Your task to perform on an android device: View the shopping cart on walmart.com. Add "rayovac triple a" to the cart on walmart.com Image 0: 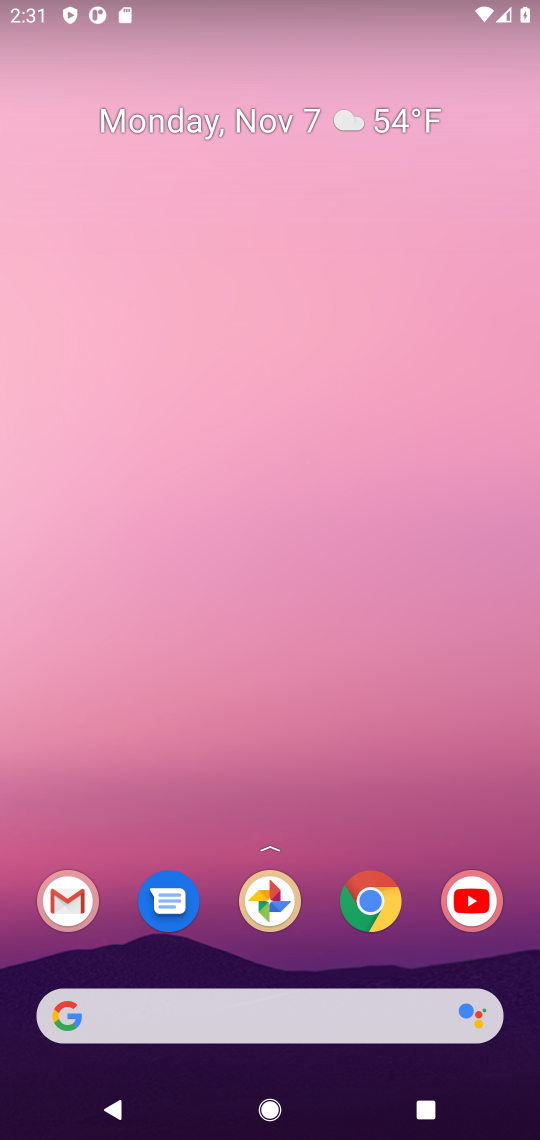
Step 0: click (363, 910)
Your task to perform on an android device: View the shopping cart on walmart.com. Add "rayovac triple a" to the cart on walmart.com Image 1: 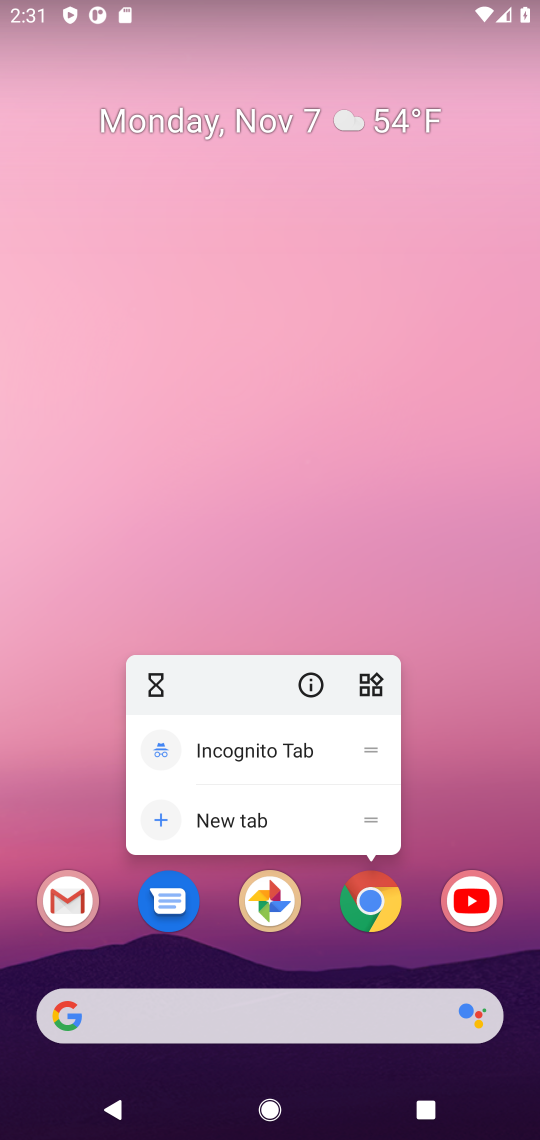
Step 1: click (363, 910)
Your task to perform on an android device: View the shopping cart on walmart.com. Add "rayovac triple a" to the cart on walmart.com Image 2: 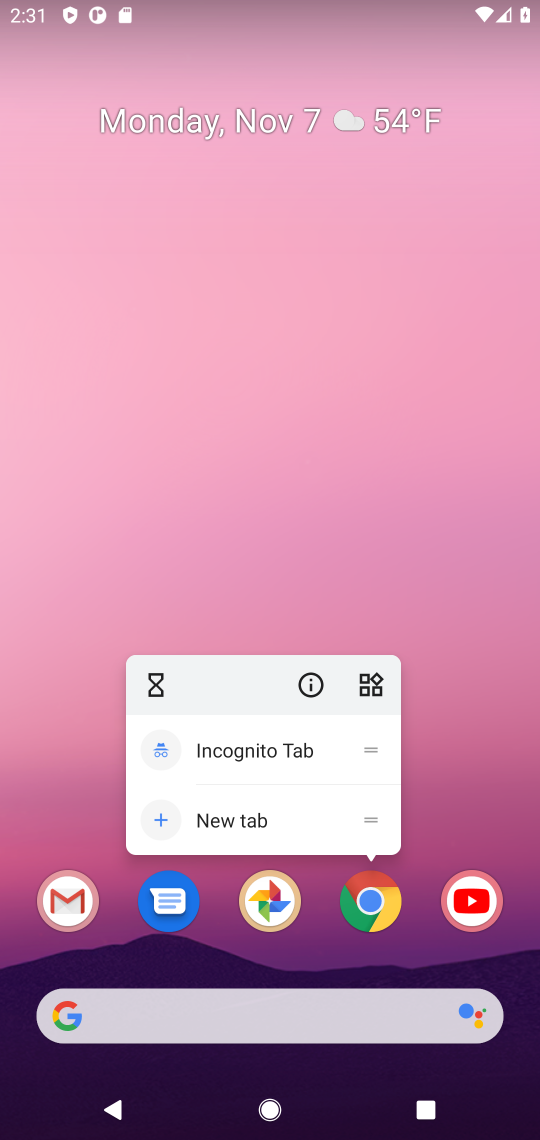
Step 2: click (368, 899)
Your task to perform on an android device: View the shopping cart on walmart.com. Add "rayovac triple a" to the cart on walmart.com Image 3: 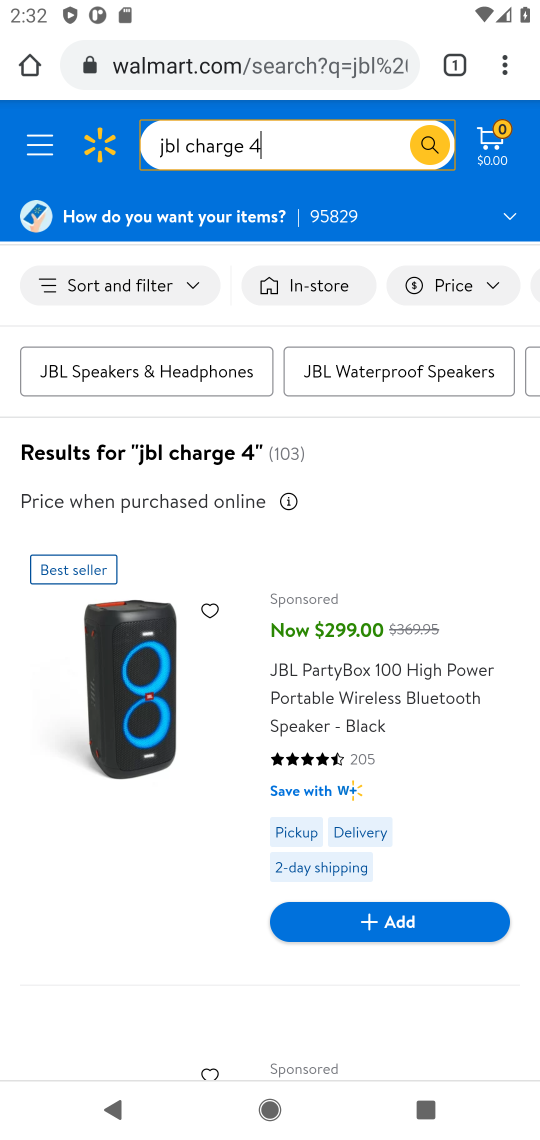
Step 3: click (486, 148)
Your task to perform on an android device: View the shopping cart on walmart.com. Add "rayovac triple a" to the cart on walmart.com Image 4: 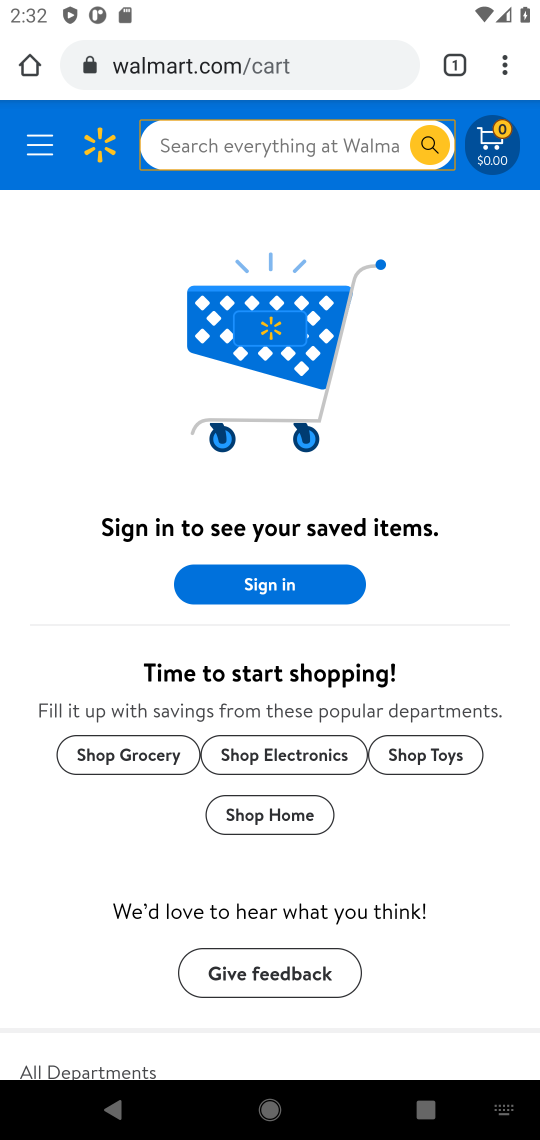
Step 4: click (201, 144)
Your task to perform on an android device: View the shopping cart on walmart.com. Add "rayovac triple a" to the cart on walmart.com Image 5: 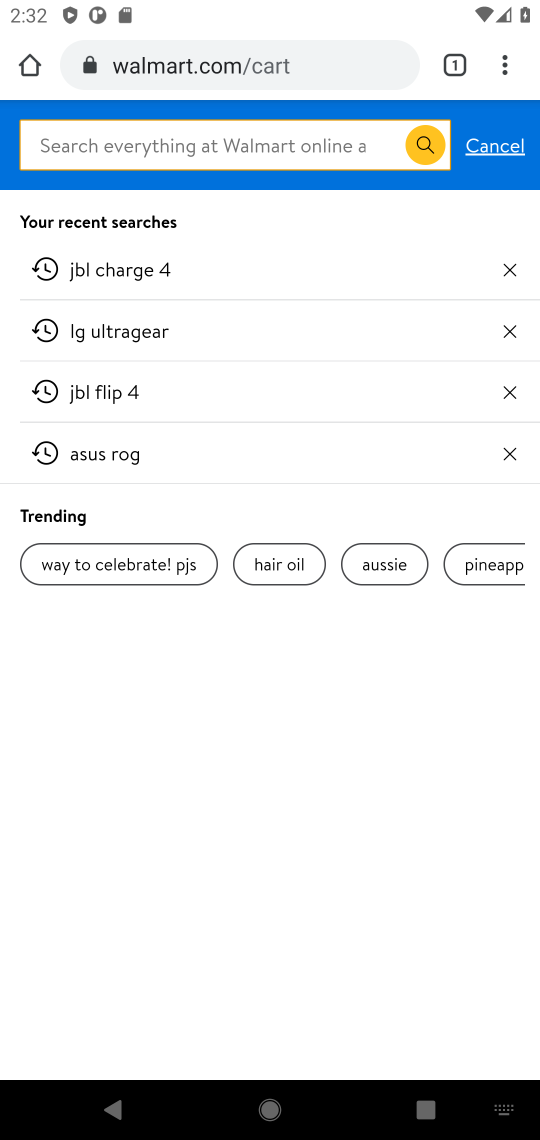
Step 5: type "rayovac triple a"
Your task to perform on an android device: View the shopping cart on walmart.com. Add "rayovac triple a" to the cart on walmart.com Image 6: 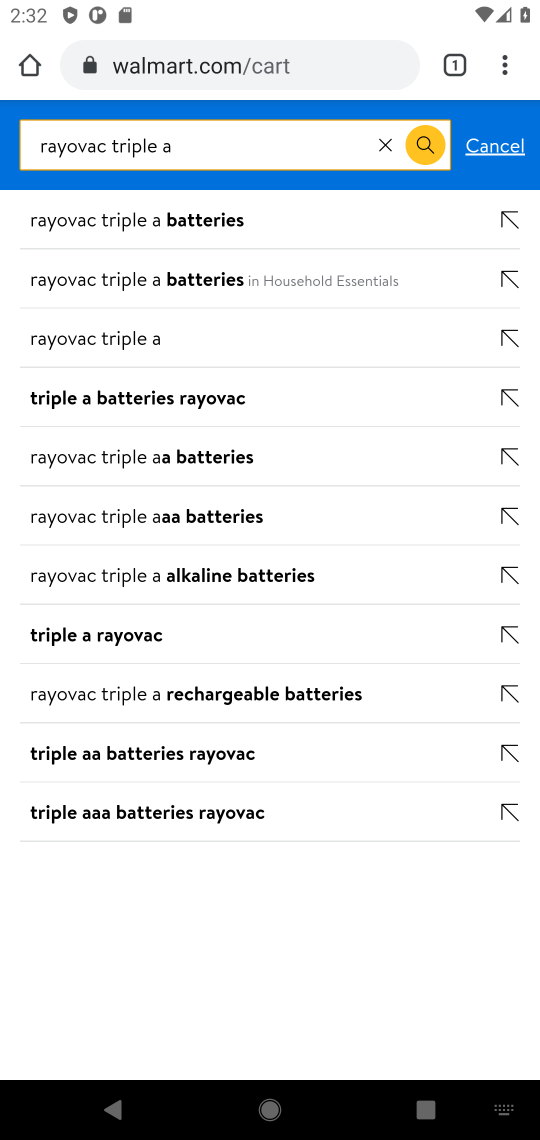
Step 6: click (138, 343)
Your task to perform on an android device: View the shopping cart on walmart.com. Add "rayovac triple a" to the cart on walmart.com Image 7: 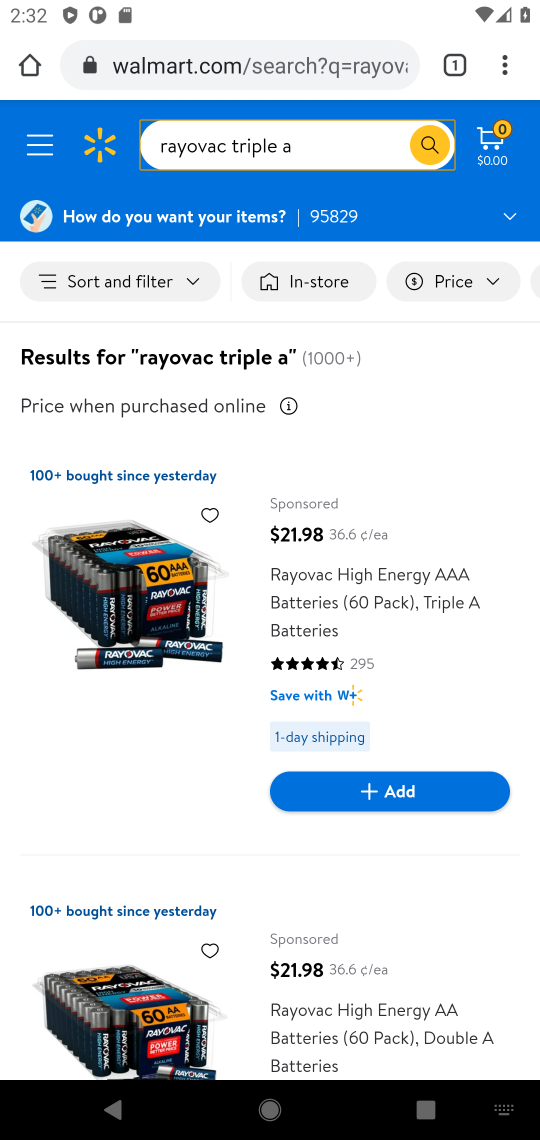
Step 7: click (374, 793)
Your task to perform on an android device: View the shopping cart on walmart.com. Add "rayovac triple a" to the cart on walmart.com Image 8: 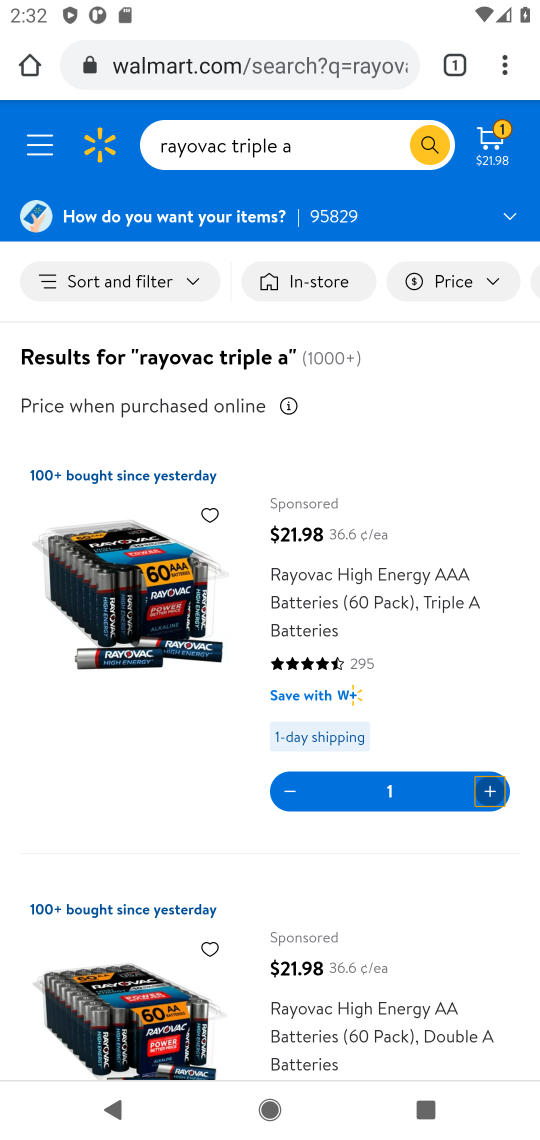
Step 8: task complete